Your task to perform on an android device: turn on translation in the chrome app Image 0: 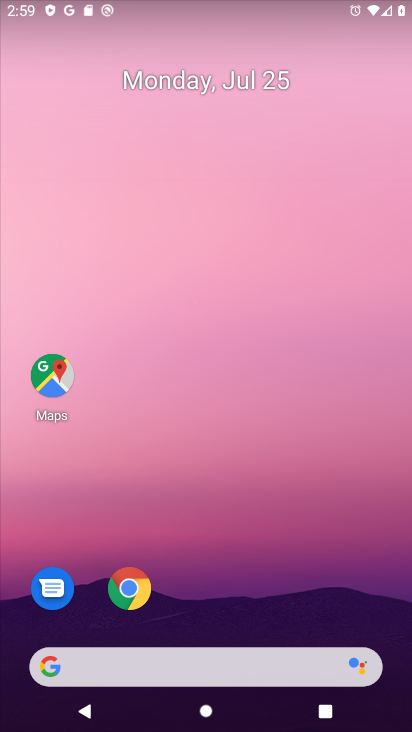
Step 0: press home button
Your task to perform on an android device: turn on translation in the chrome app Image 1: 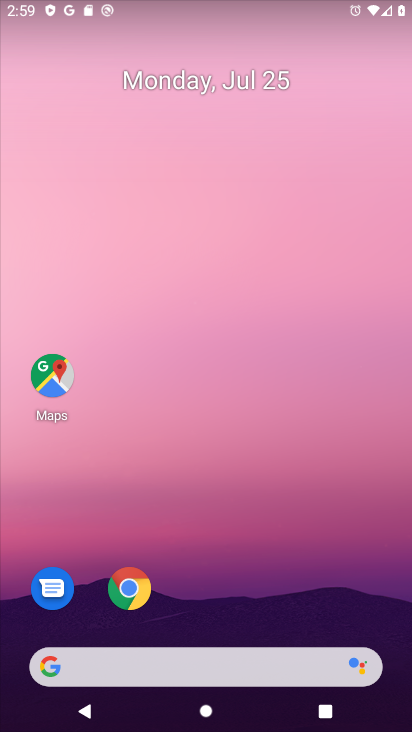
Step 1: drag from (213, 621) to (195, 1)
Your task to perform on an android device: turn on translation in the chrome app Image 2: 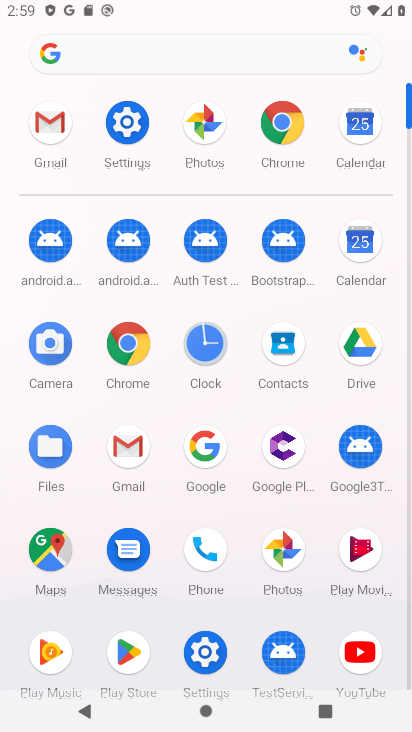
Step 2: click (277, 117)
Your task to perform on an android device: turn on translation in the chrome app Image 3: 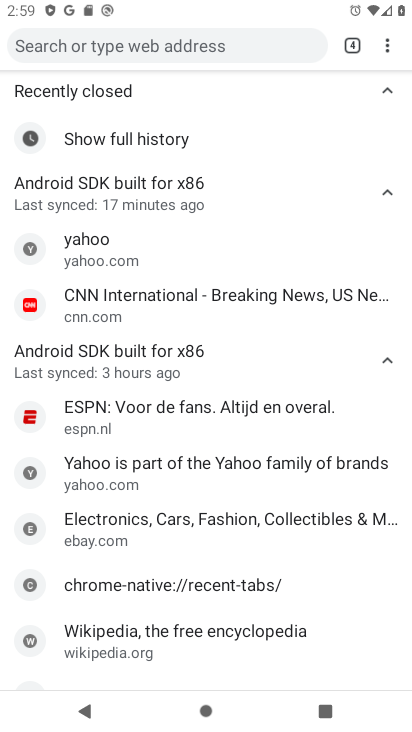
Step 3: click (385, 43)
Your task to perform on an android device: turn on translation in the chrome app Image 4: 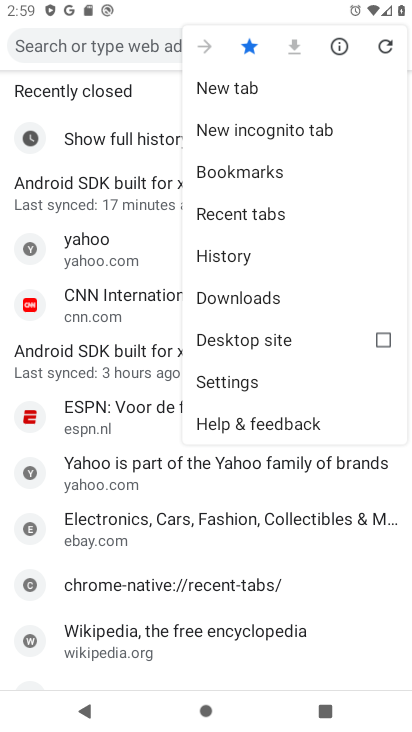
Step 4: click (262, 379)
Your task to perform on an android device: turn on translation in the chrome app Image 5: 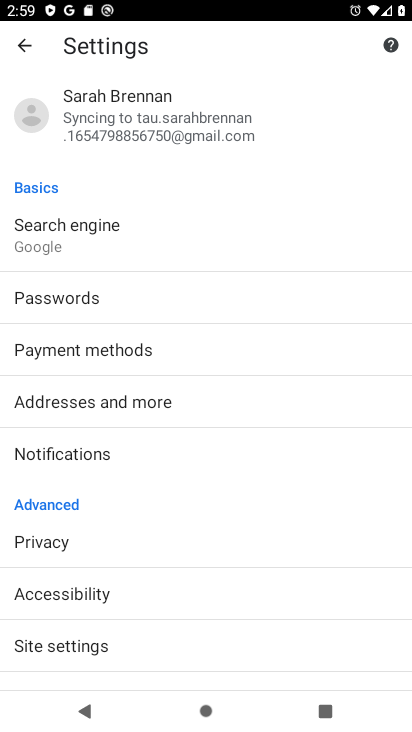
Step 5: drag from (138, 646) to (159, 161)
Your task to perform on an android device: turn on translation in the chrome app Image 6: 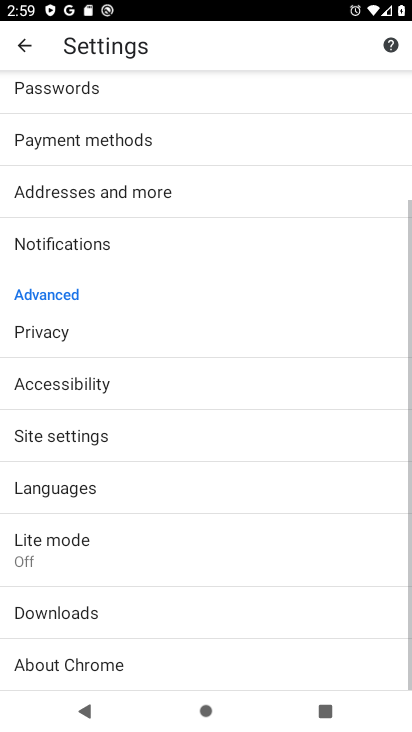
Step 6: click (119, 485)
Your task to perform on an android device: turn on translation in the chrome app Image 7: 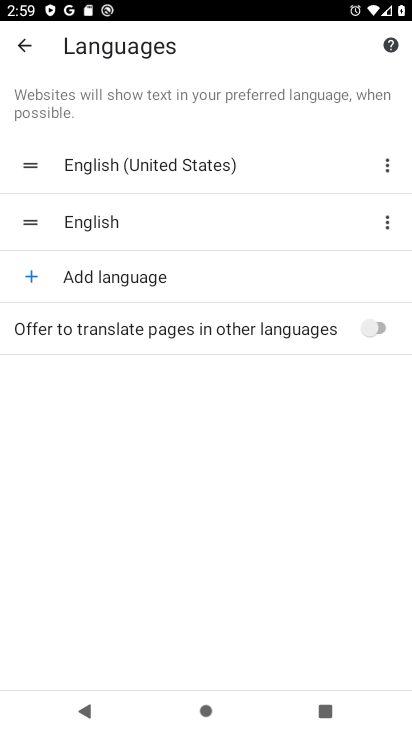
Step 7: click (378, 329)
Your task to perform on an android device: turn on translation in the chrome app Image 8: 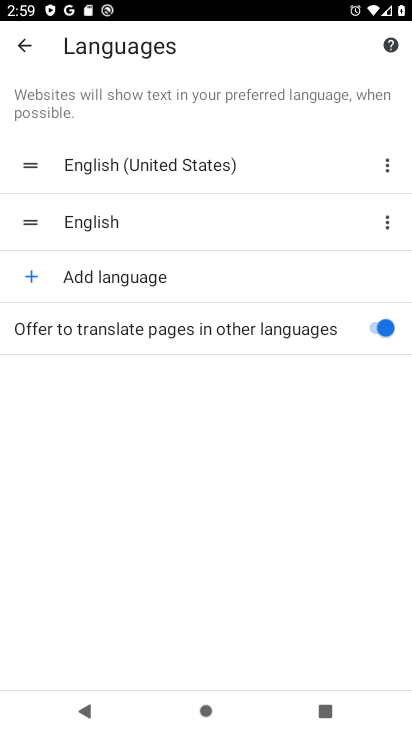
Step 8: task complete